Your task to perform on an android device: remove spam from my inbox in the gmail app Image 0: 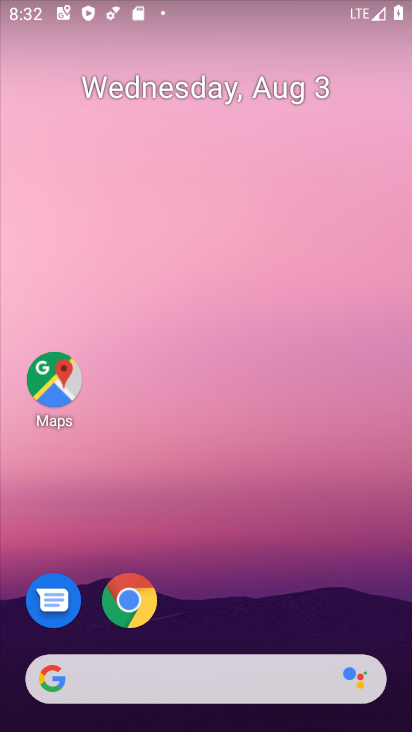
Step 0: drag from (198, 633) to (154, 1)
Your task to perform on an android device: remove spam from my inbox in the gmail app Image 1: 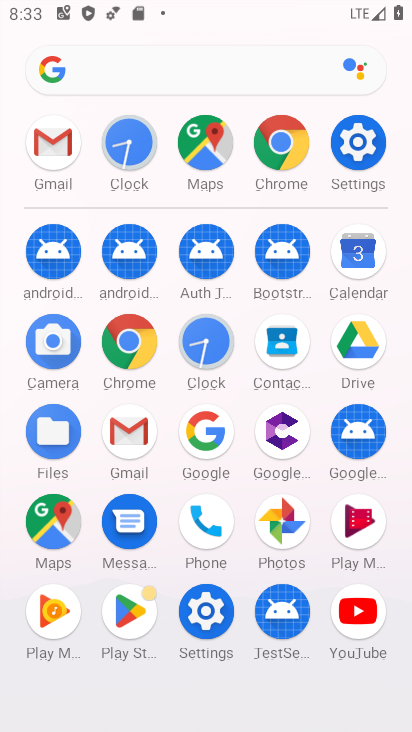
Step 1: click (146, 435)
Your task to perform on an android device: remove spam from my inbox in the gmail app Image 2: 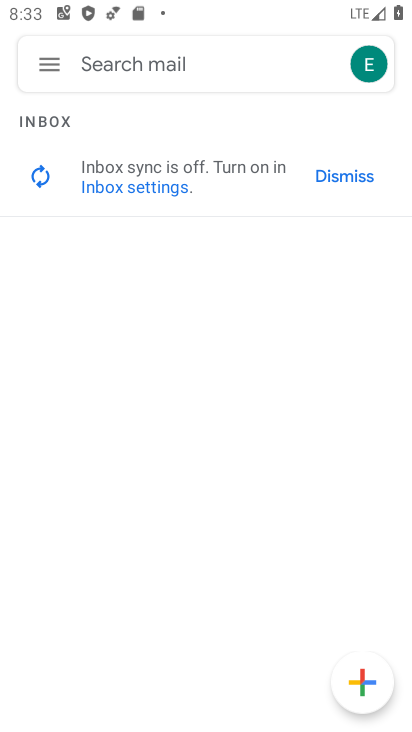
Step 2: click (49, 70)
Your task to perform on an android device: remove spam from my inbox in the gmail app Image 3: 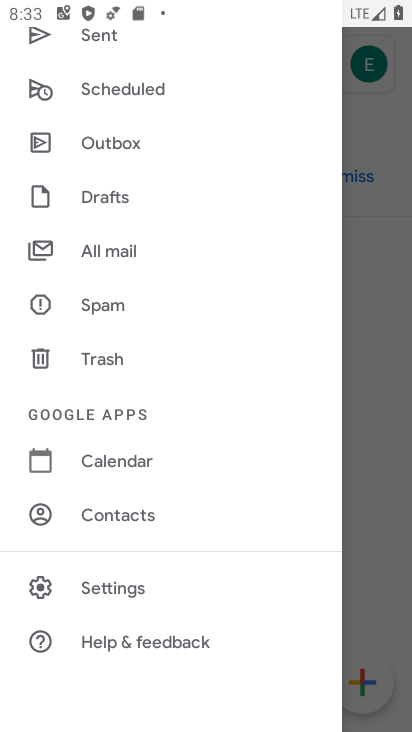
Step 3: click (108, 316)
Your task to perform on an android device: remove spam from my inbox in the gmail app Image 4: 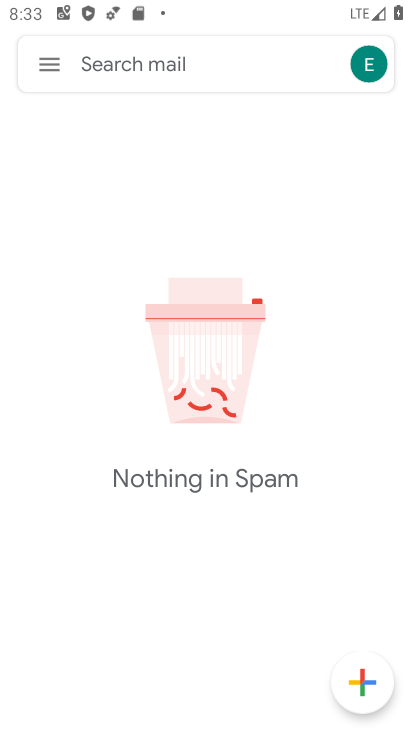
Step 4: task complete